Your task to perform on an android device: Is it going to rain today? Image 0: 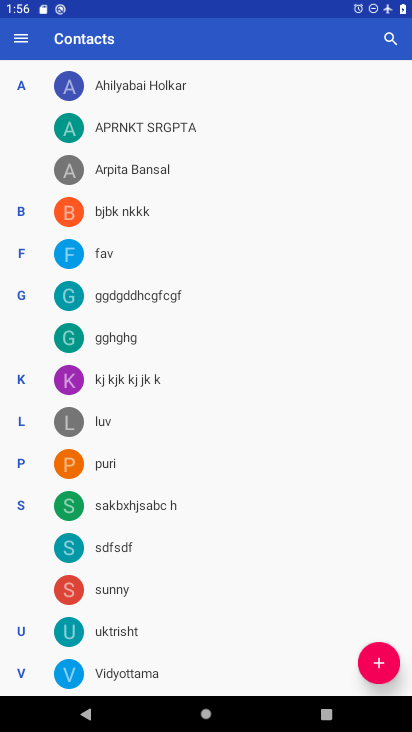
Step 0: press home button
Your task to perform on an android device: Is it going to rain today? Image 1: 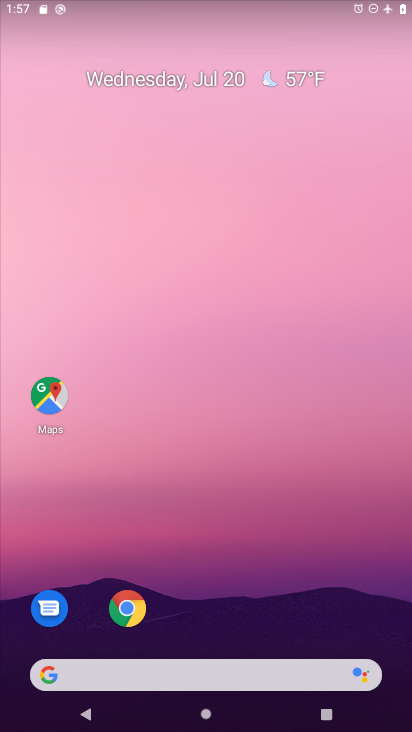
Step 1: click (307, 674)
Your task to perform on an android device: Is it going to rain today? Image 2: 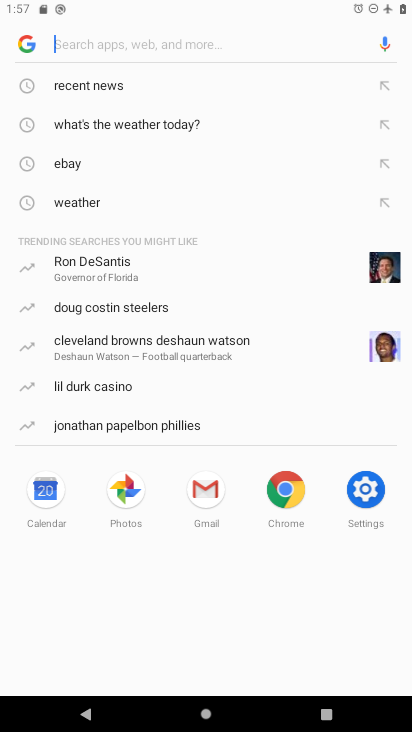
Step 2: type "Is it going to rain today?"
Your task to perform on an android device: Is it going to rain today? Image 3: 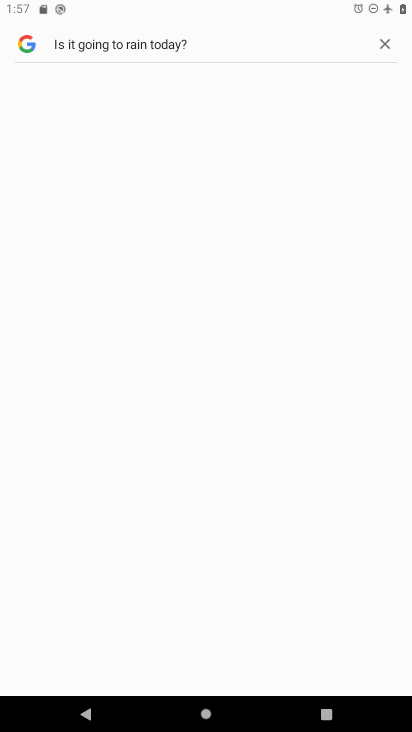
Step 3: press enter
Your task to perform on an android device: Is it going to rain today? Image 4: 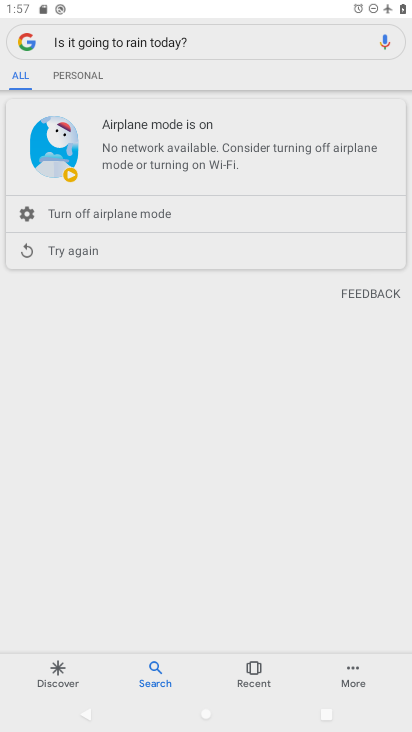
Step 4: task complete